Your task to perform on an android device: change the upload size in google photos Image 0: 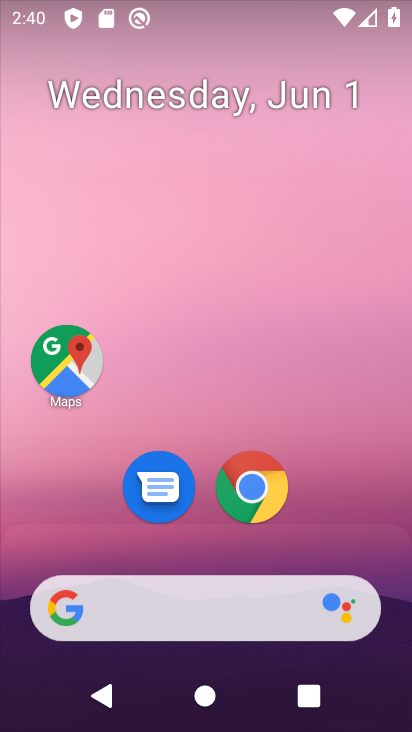
Step 0: drag from (342, 516) to (331, 60)
Your task to perform on an android device: change the upload size in google photos Image 1: 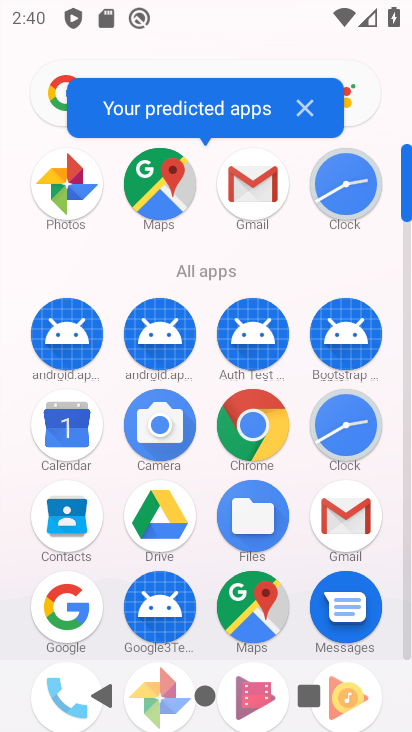
Step 1: drag from (297, 483) to (290, 226)
Your task to perform on an android device: change the upload size in google photos Image 2: 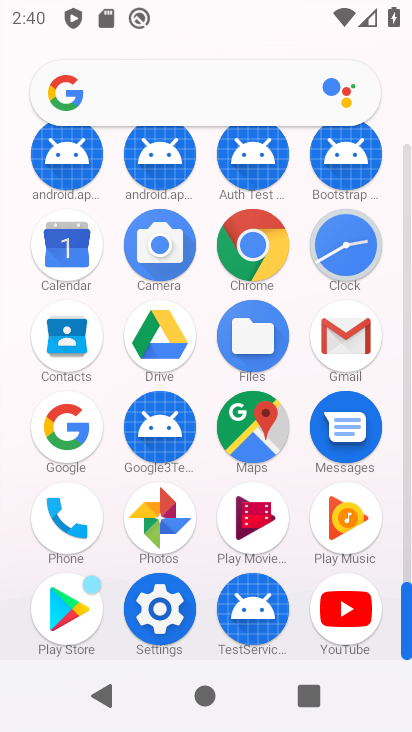
Step 2: click (158, 503)
Your task to perform on an android device: change the upload size in google photos Image 3: 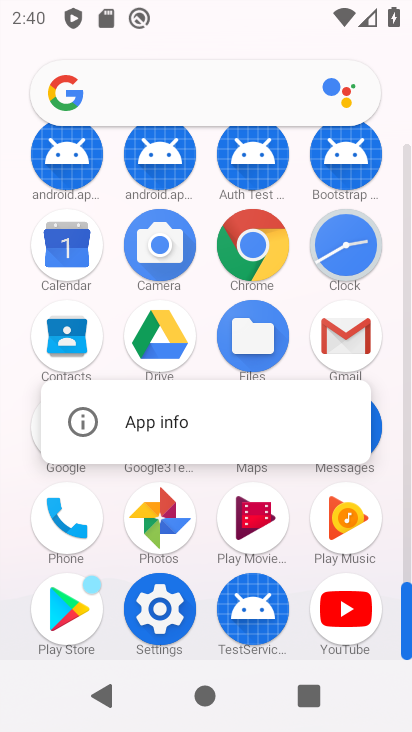
Step 3: click (170, 511)
Your task to perform on an android device: change the upload size in google photos Image 4: 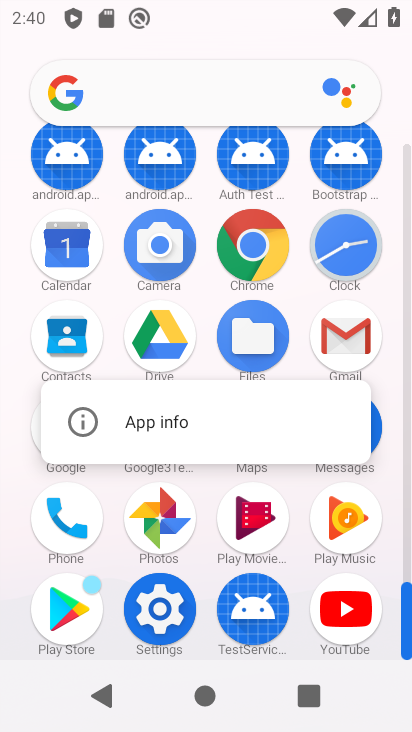
Step 4: click (170, 511)
Your task to perform on an android device: change the upload size in google photos Image 5: 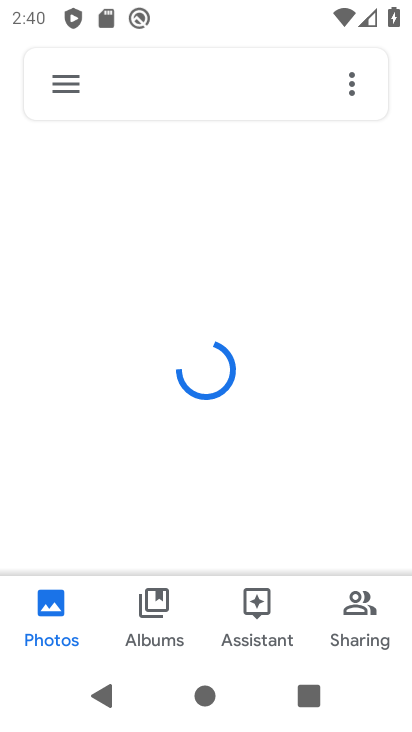
Step 5: click (57, 81)
Your task to perform on an android device: change the upload size in google photos Image 6: 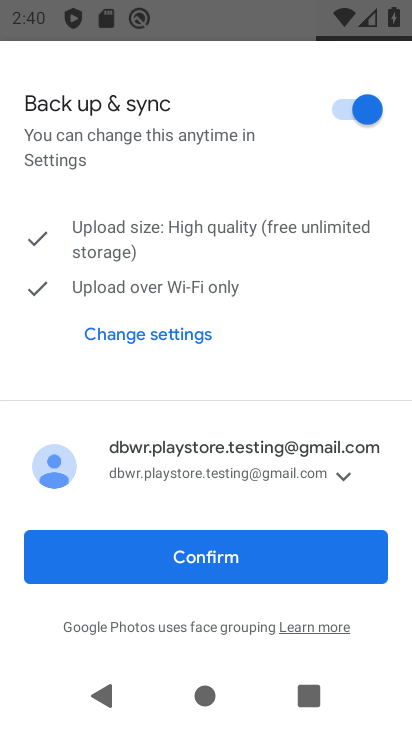
Step 6: click (192, 554)
Your task to perform on an android device: change the upload size in google photos Image 7: 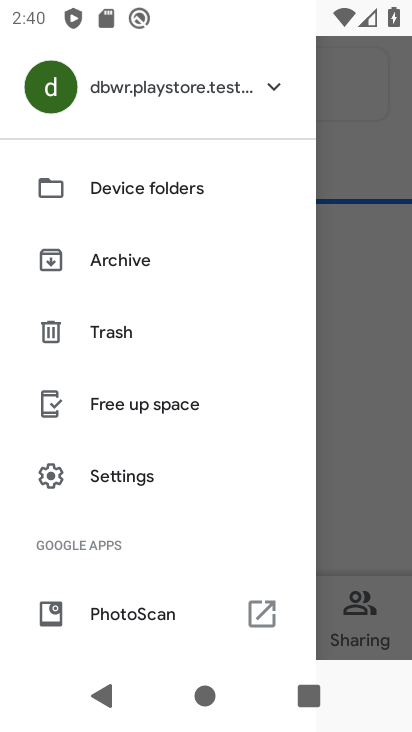
Step 7: click (99, 461)
Your task to perform on an android device: change the upload size in google photos Image 8: 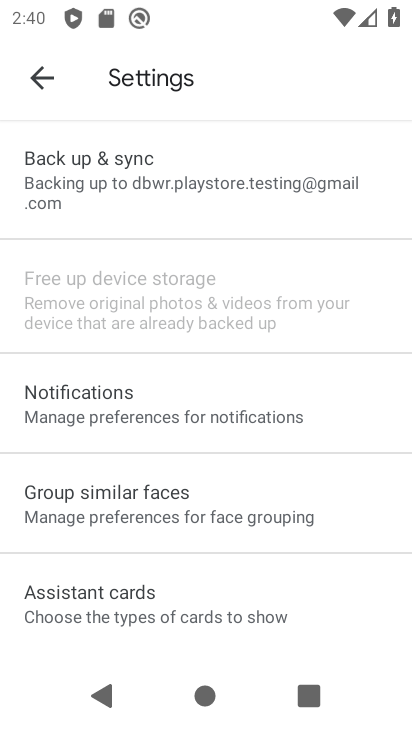
Step 8: click (137, 182)
Your task to perform on an android device: change the upload size in google photos Image 9: 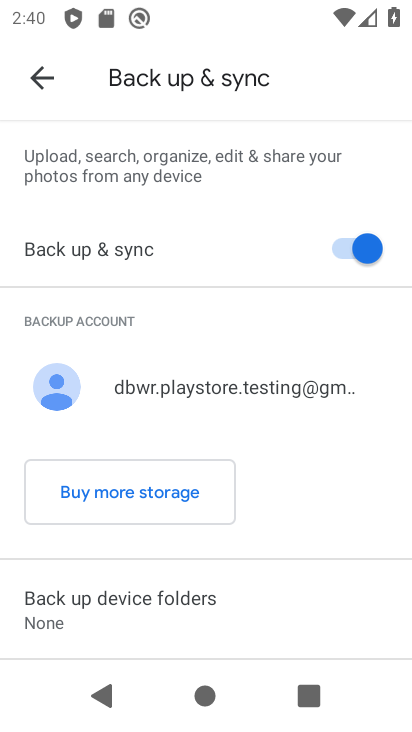
Step 9: drag from (276, 482) to (240, 155)
Your task to perform on an android device: change the upload size in google photos Image 10: 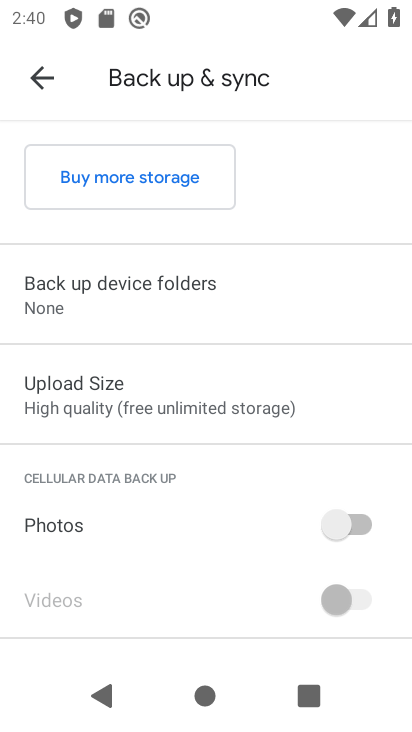
Step 10: click (186, 379)
Your task to perform on an android device: change the upload size in google photos Image 11: 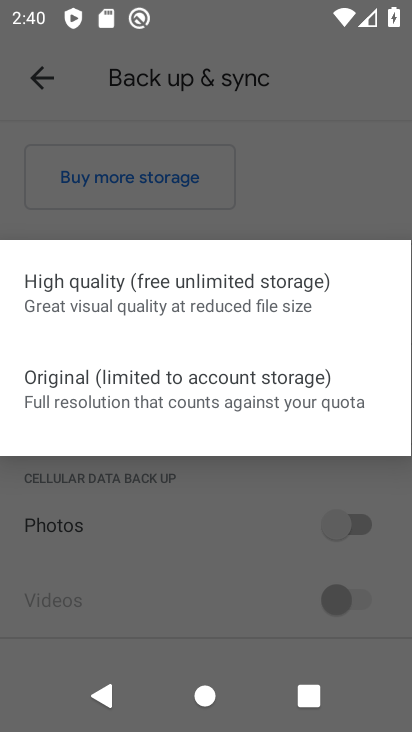
Step 11: click (186, 379)
Your task to perform on an android device: change the upload size in google photos Image 12: 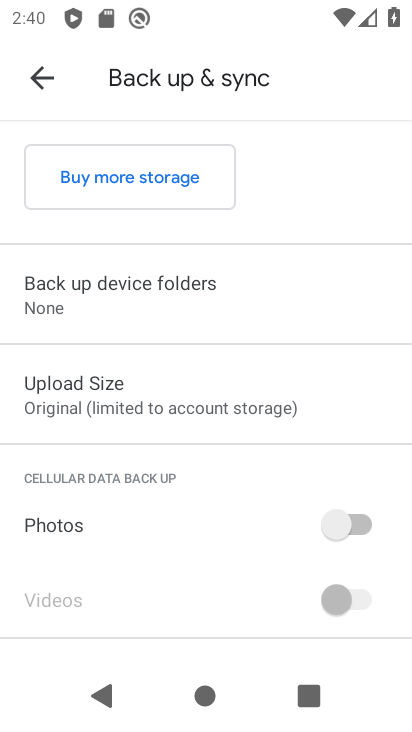
Step 12: task complete